Your task to perform on an android device: What's the weather going to be this weekend? Image 0: 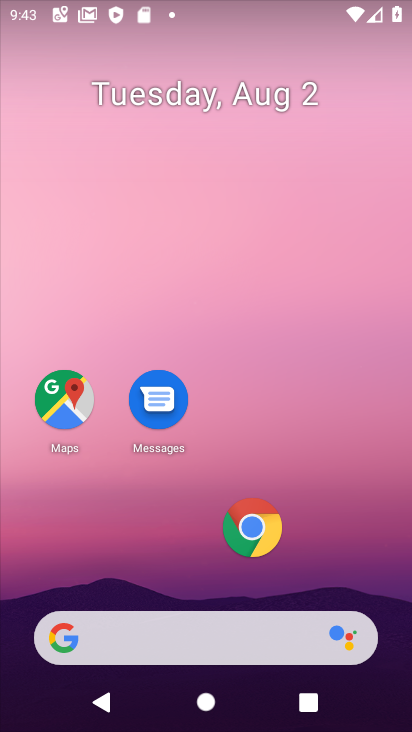
Step 0: drag from (200, 610) to (179, 158)
Your task to perform on an android device: What's the weather going to be this weekend? Image 1: 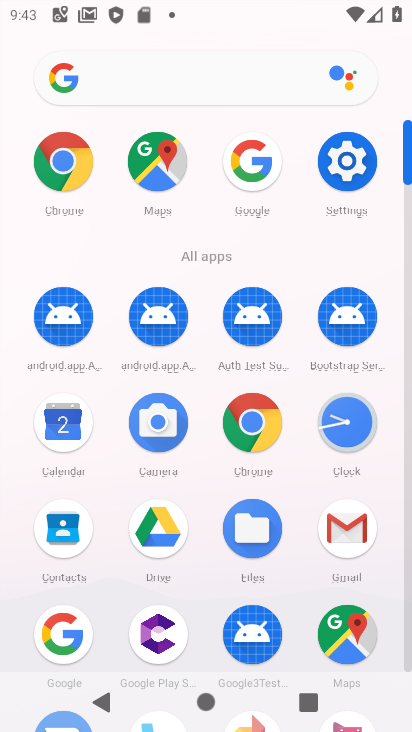
Step 1: drag from (203, 604) to (198, 323)
Your task to perform on an android device: What's the weather going to be this weekend? Image 2: 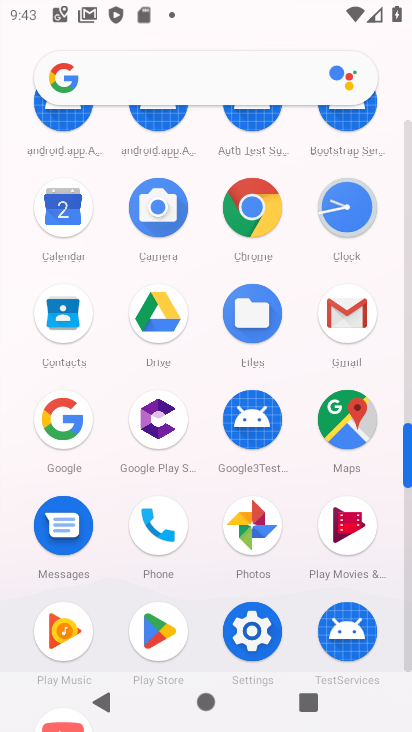
Step 2: click (66, 421)
Your task to perform on an android device: What's the weather going to be this weekend? Image 3: 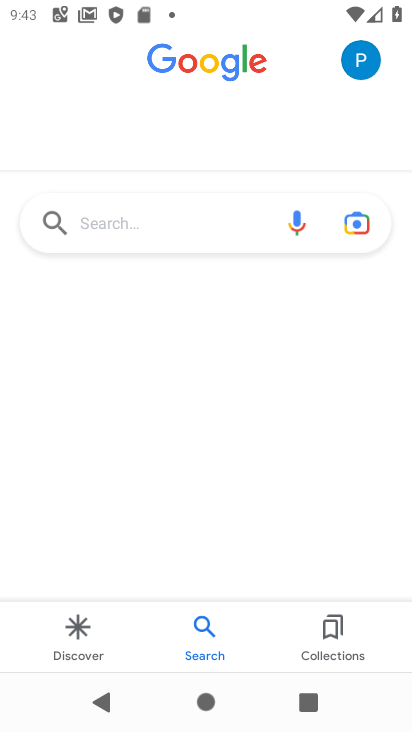
Step 3: click (186, 222)
Your task to perform on an android device: What's the weather going to be this weekend? Image 4: 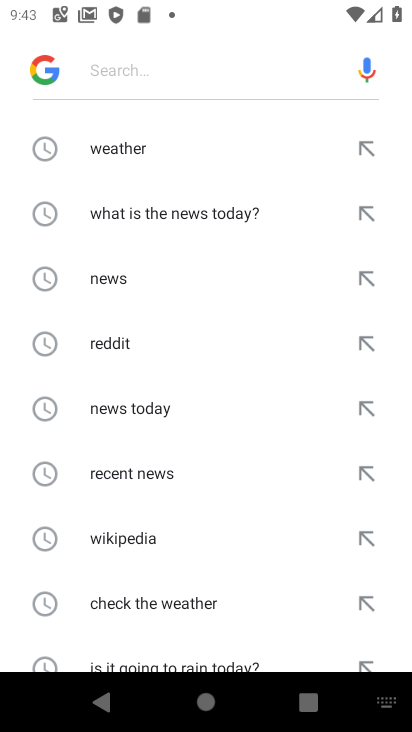
Step 4: drag from (162, 615) to (151, 256)
Your task to perform on an android device: What's the weather going to be this weekend? Image 5: 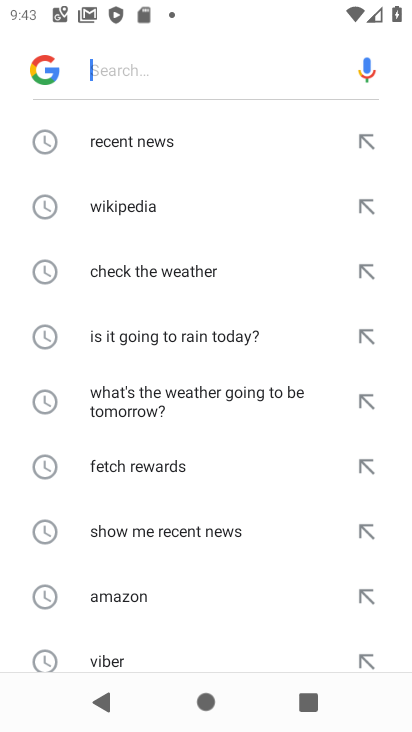
Step 5: drag from (146, 622) to (146, 282)
Your task to perform on an android device: What's the weather going to be this weekend? Image 6: 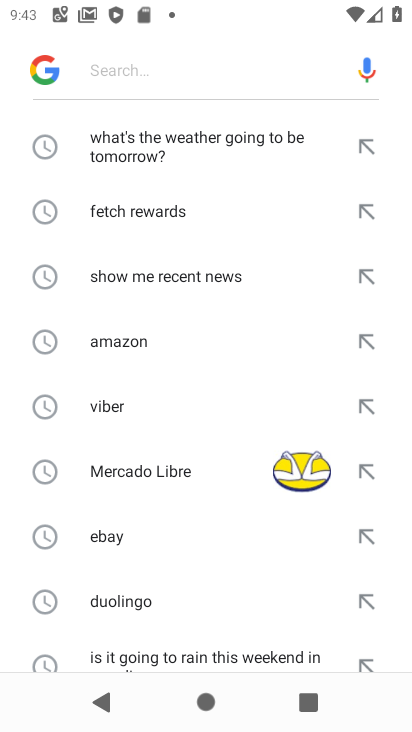
Step 6: drag from (169, 525) to (170, 280)
Your task to perform on an android device: What's the weather going to be this weekend? Image 7: 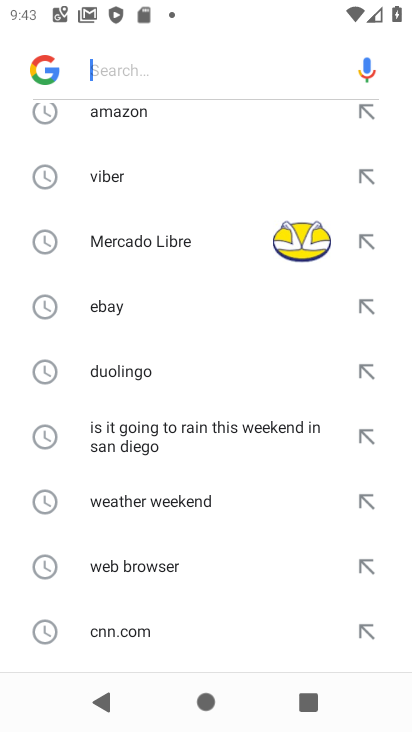
Step 7: click (167, 502)
Your task to perform on an android device: What's the weather going to be this weekend? Image 8: 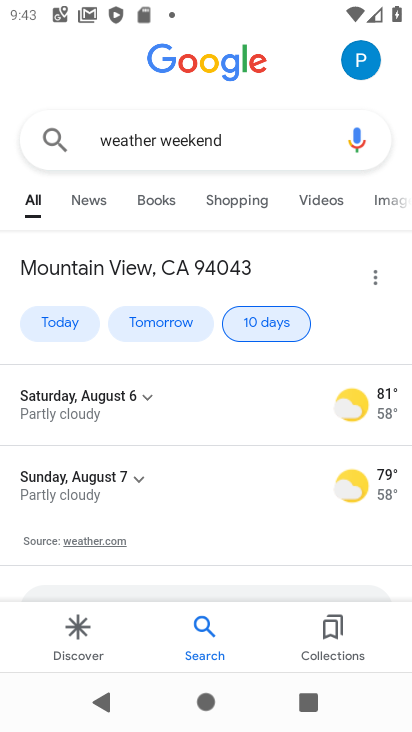
Step 8: drag from (175, 521) to (175, 243)
Your task to perform on an android device: What's the weather going to be this weekend? Image 9: 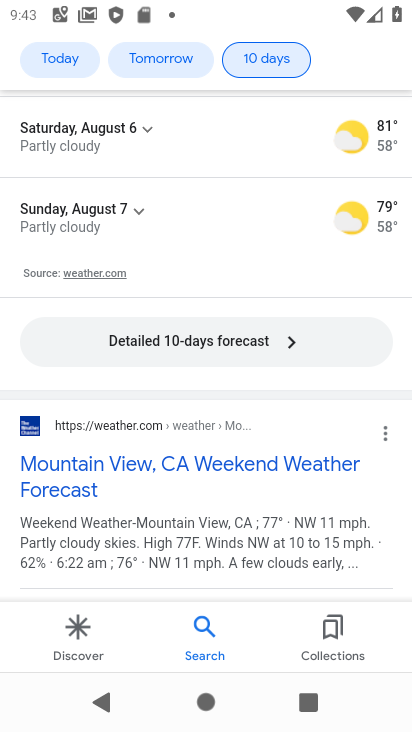
Step 9: click (188, 346)
Your task to perform on an android device: What's the weather going to be this weekend? Image 10: 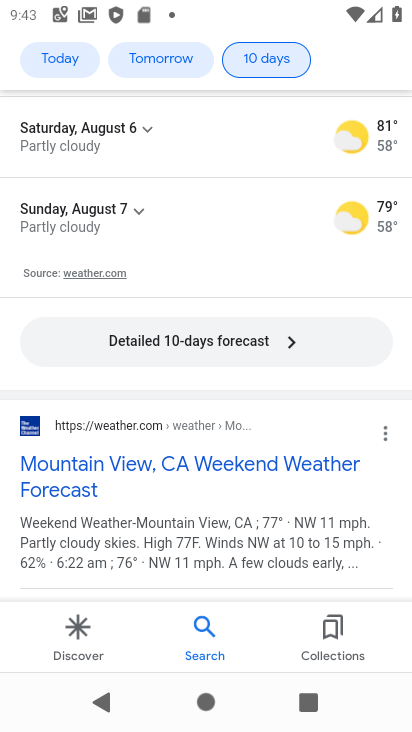
Step 10: click (186, 336)
Your task to perform on an android device: What's the weather going to be this weekend? Image 11: 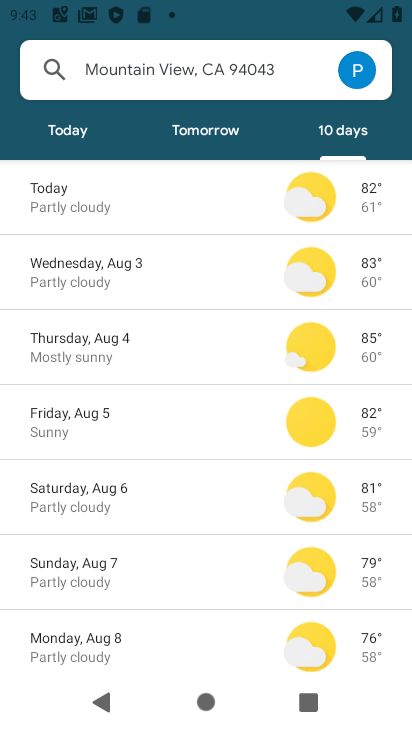
Step 11: task complete